Your task to perform on an android device: toggle airplane mode Image 0: 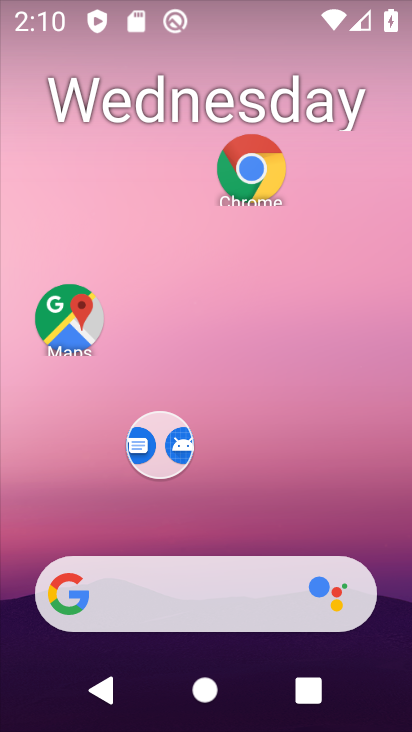
Step 0: drag from (252, 542) to (239, 3)
Your task to perform on an android device: toggle airplane mode Image 1: 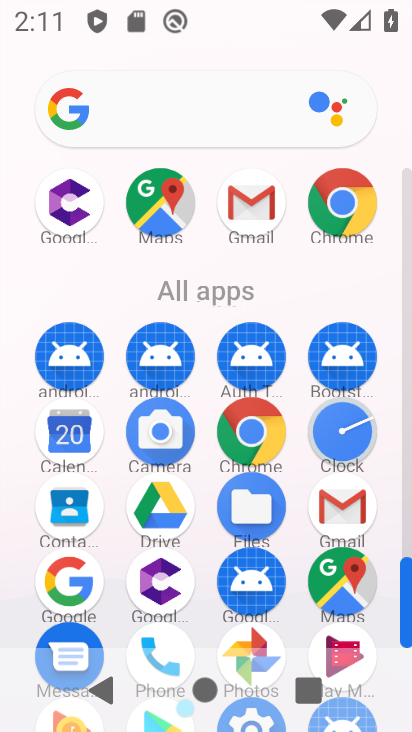
Step 1: drag from (302, 606) to (319, 80)
Your task to perform on an android device: toggle airplane mode Image 2: 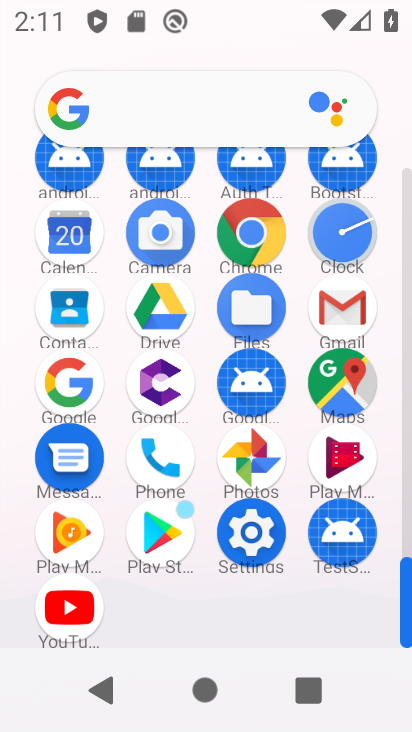
Step 2: click (269, 540)
Your task to perform on an android device: toggle airplane mode Image 3: 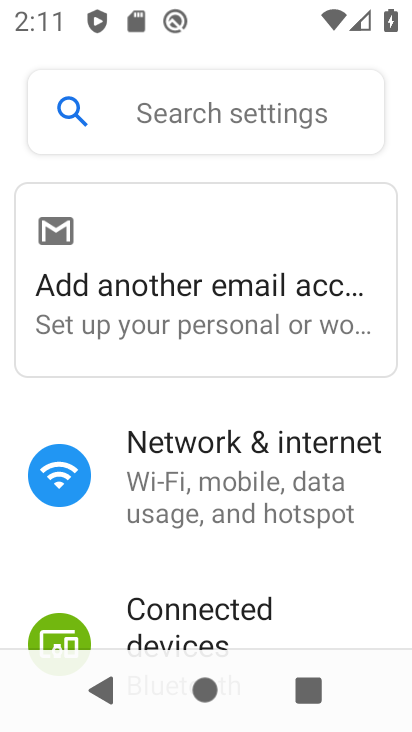
Step 3: click (265, 482)
Your task to perform on an android device: toggle airplane mode Image 4: 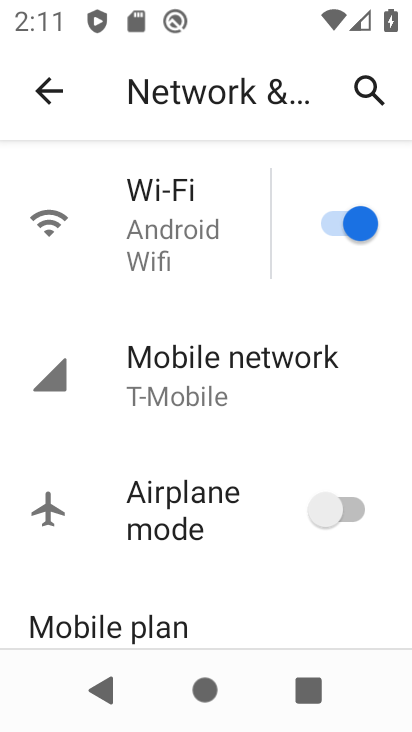
Step 4: click (351, 524)
Your task to perform on an android device: toggle airplane mode Image 5: 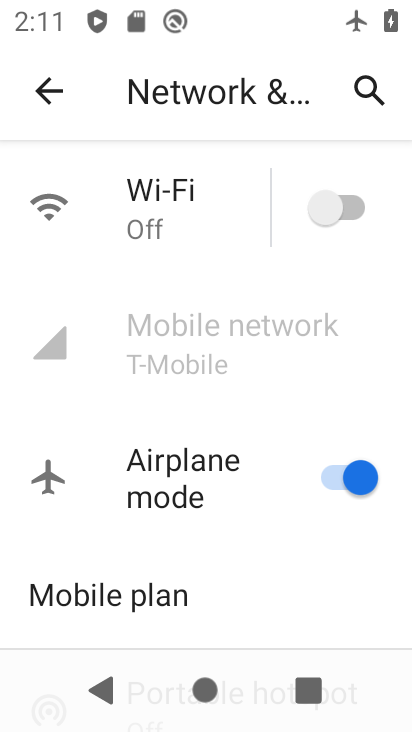
Step 5: task complete